Your task to perform on an android device: Open sound settings Image 0: 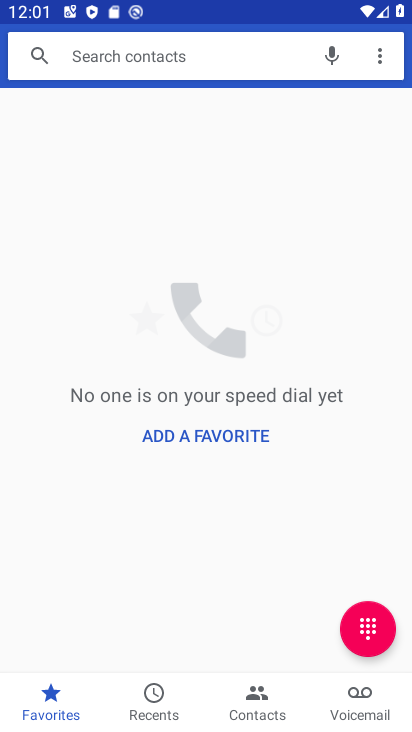
Step 0: press home button
Your task to perform on an android device: Open sound settings Image 1: 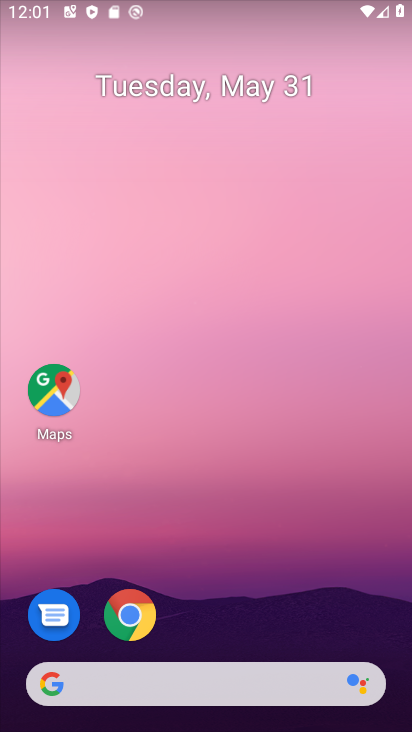
Step 1: drag from (370, 622) to (374, 266)
Your task to perform on an android device: Open sound settings Image 2: 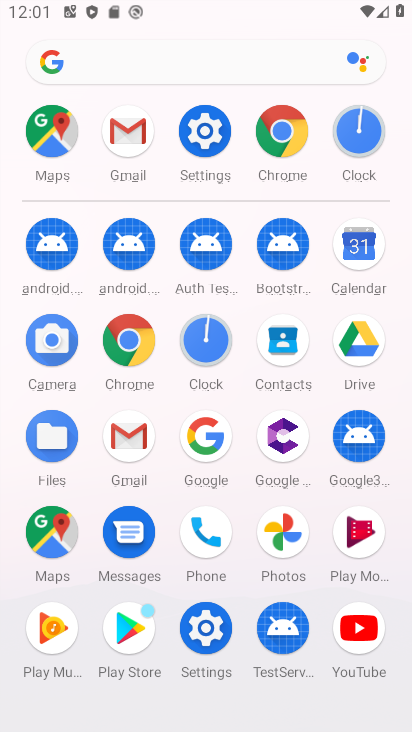
Step 2: click (221, 642)
Your task to perform on an android device: Open sound settings Image 3: 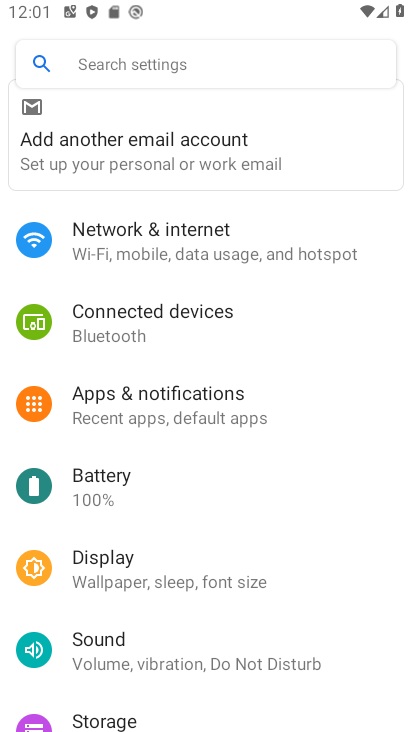
Step 3: drag from (347, 312) to (348, 450)
Your task to perform on an android device: Open sound settings Image 4: 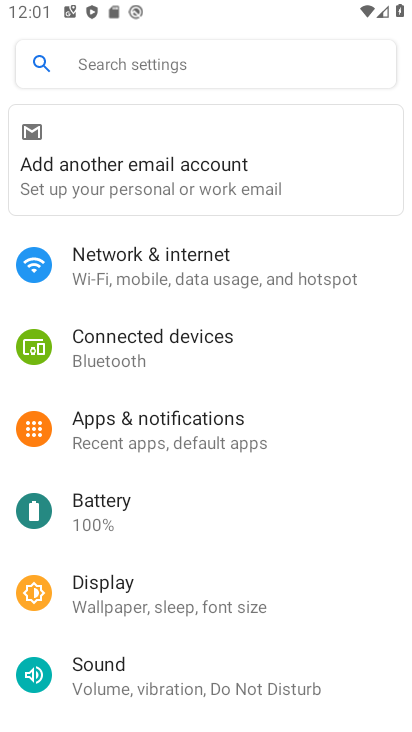
Step 4: drag from (354, 537) to (357, 448)
Your task to perform on an android device: Open sound settings Image 5: 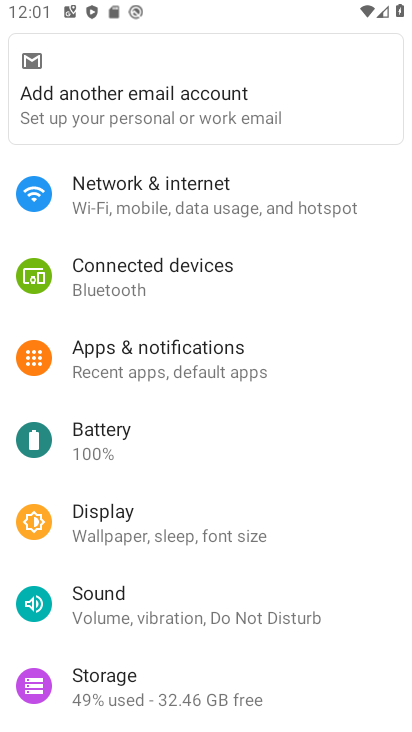
Step 5: drag from (361, 538) to (357, 425)
Your task to perform on an android device: Open sound settings Image 6: 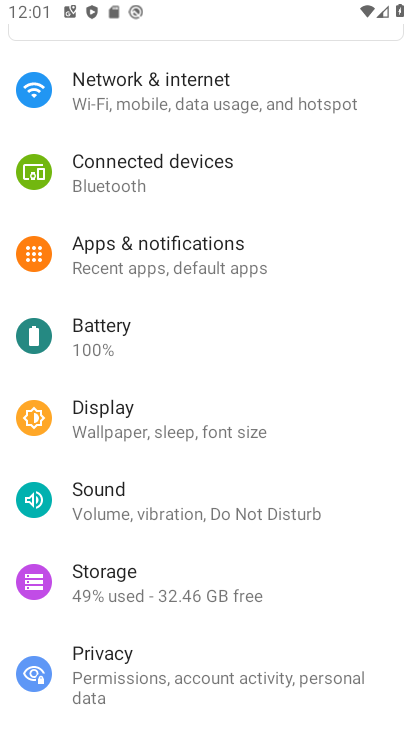
Step 6: drag from (369, 529) to (368, 442)
Your task to perform on an android device: Open sound settings Image 7: 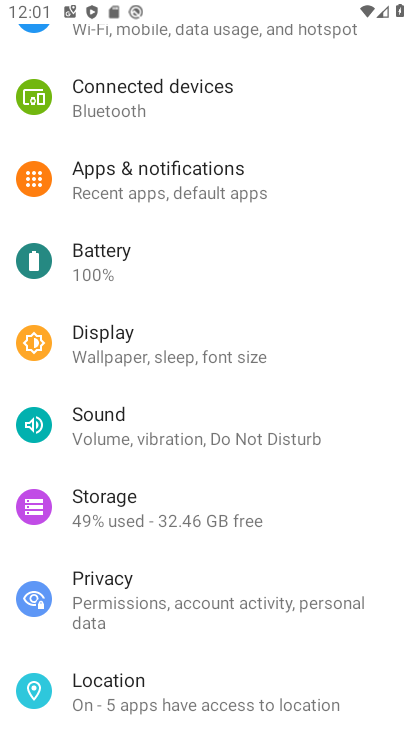
Step 7: drag from (362, 589) to (360, 459)
Your task to perform on an android device: Open sound settings Image 8: 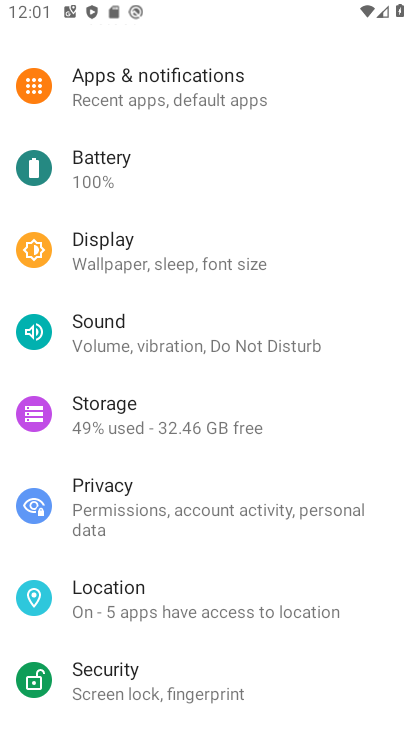
Step 8: drag from (369, 564) to (373, 452)
Your task to perform on an android device: Open sound settings Image 9: 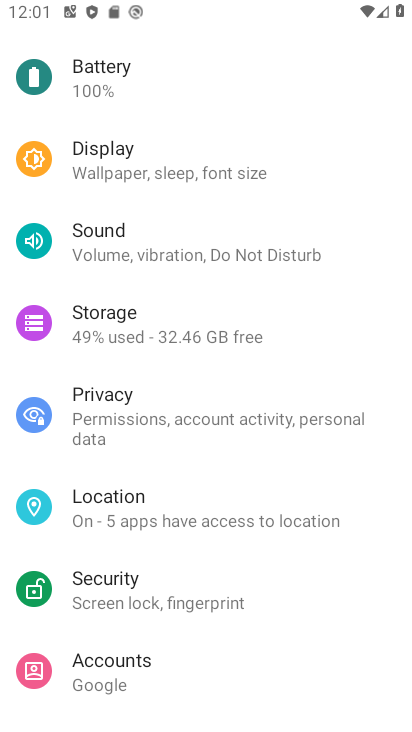
Step 9: click (282, 258)
Your task to perform on an android device: Open sound settings Image 10: 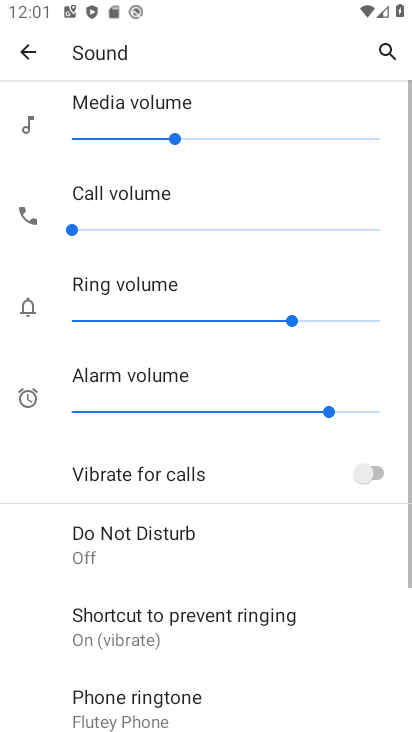
Step 10: task complete